Your task to perform on an android device: Go to wifi settings Image 0: 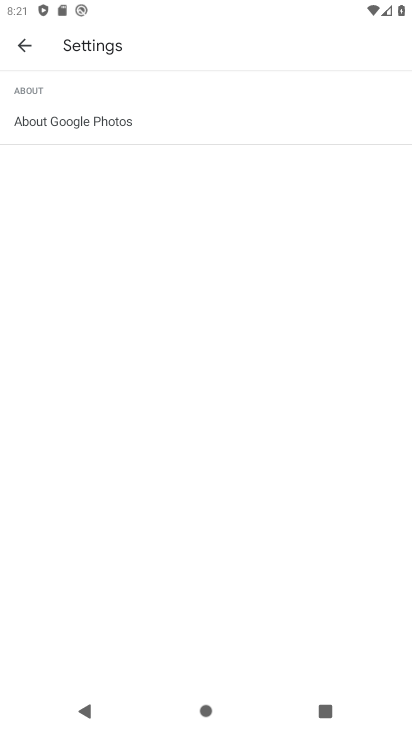
Step 0: drag from (179, 9) to (191, 697)
Your task to perform on an android device: Go to wifi settings Image 1: 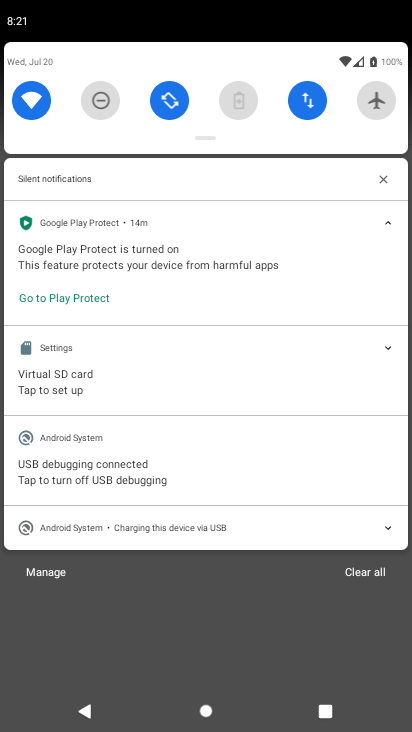
Step 1: click (34, 99)
Your task to perform on an android device: Go to wifi settings Image 2: 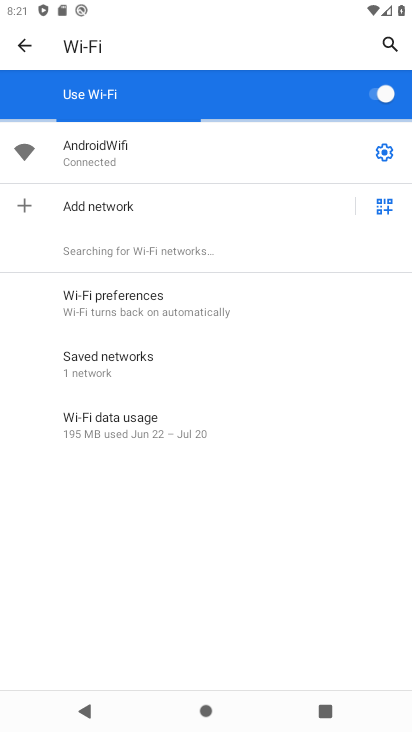
Step 2: task complete